Your task to perform on an android device: open device folders in google photos Image 0: 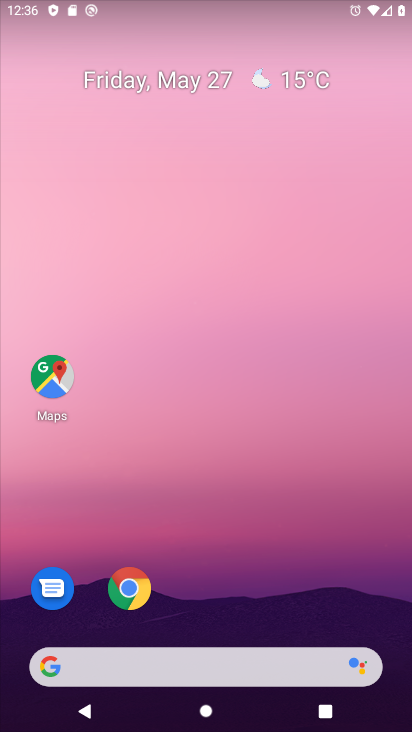
Step 0: drag from (372, 630) to (353, 113)
Your task to perform on an android device: open device folders in google photos Image 1: 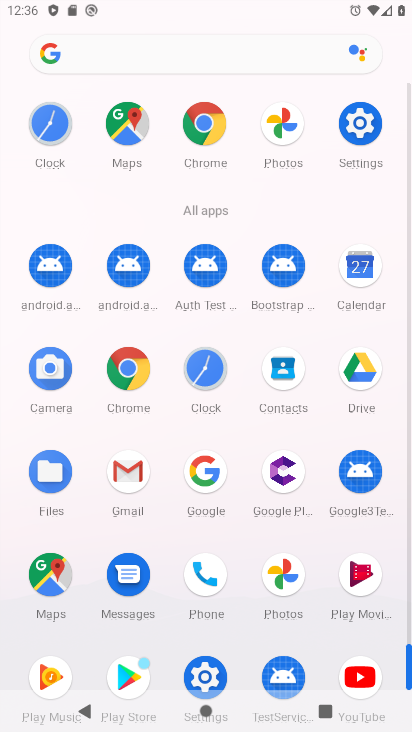
Step 1: click (408, 630)
Your task to perform on an android device: open device folders in google photos Image 2: 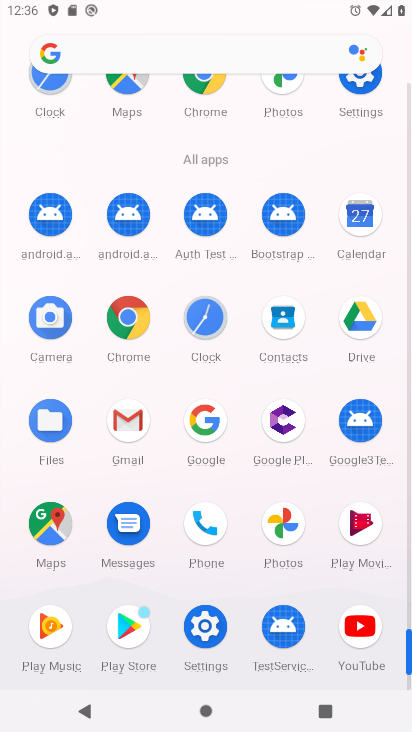
Step 2: click (282, 520)
Your task to perform on an android device: open device folders in google photos Image 3: 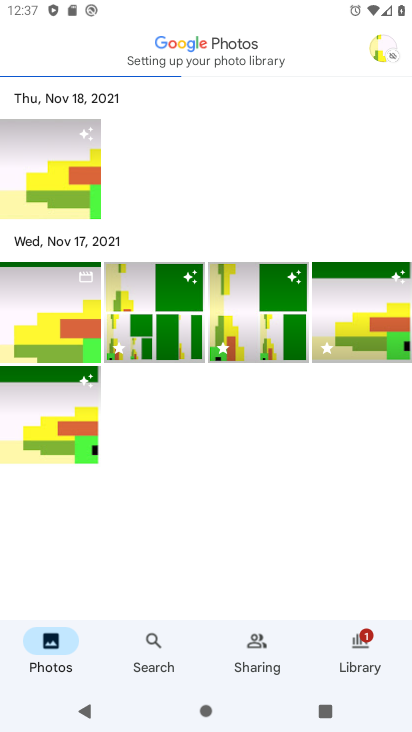
Step 3: task complete